Your task to perform on an android device: move an email to a new category in the gmail app Image 0: 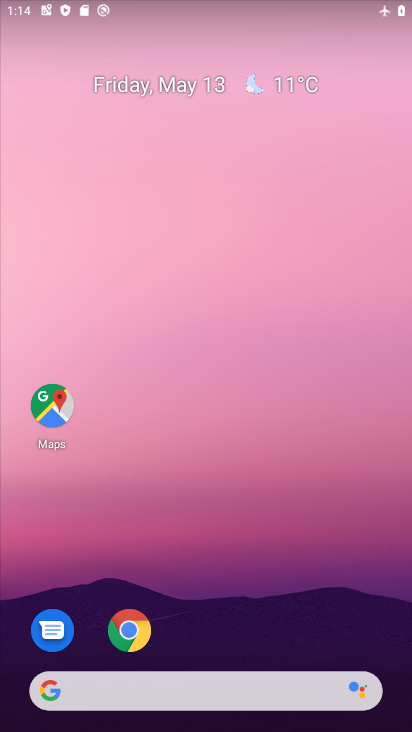
Step 0: drag from (351, 592) to (334, 12)
Your task to perform on an android device: move an email to a new category in the gmail app Image 1: 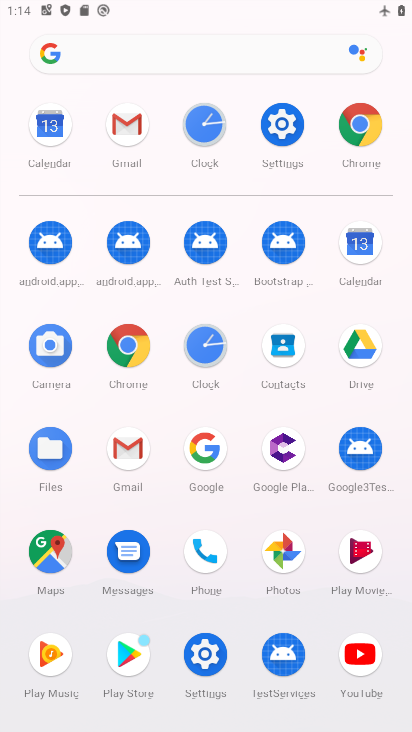
Step 1: click (137, 450)
Your task to perform on an android device: move an email to a new category in the gmail app Image 2: 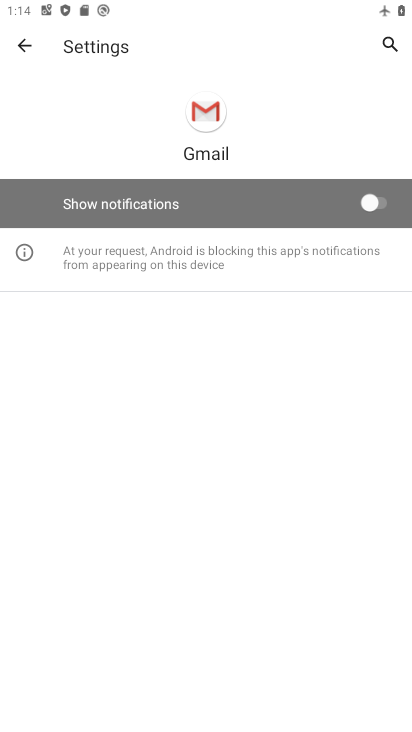
Step 2: click (26, 46)
Your task to perform on an android device: move an email to a new category in the gmail app Image 3: 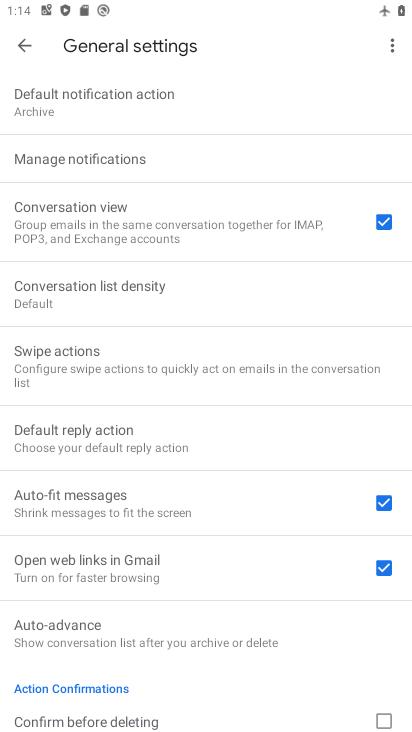
Step 3: click (28, 46)
Your task to perform on an android device: move an email to a new category in the gmail app Image 4: 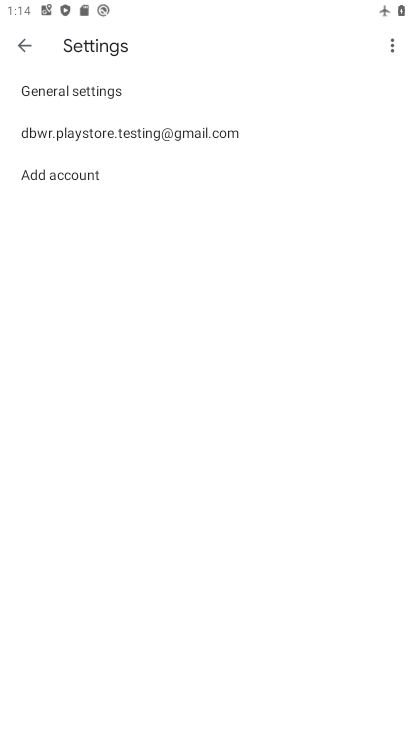
Step 4: click (28, 46)
Your task to perform on an android device: move an email to a new category in the gmail app Image 5: 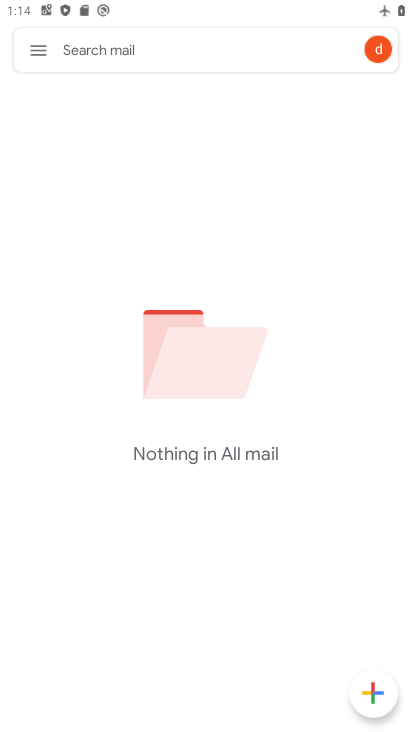
Step 5: task complete